Your task to perform on an android device: Search for pizza restaurants on Maps Image 0: 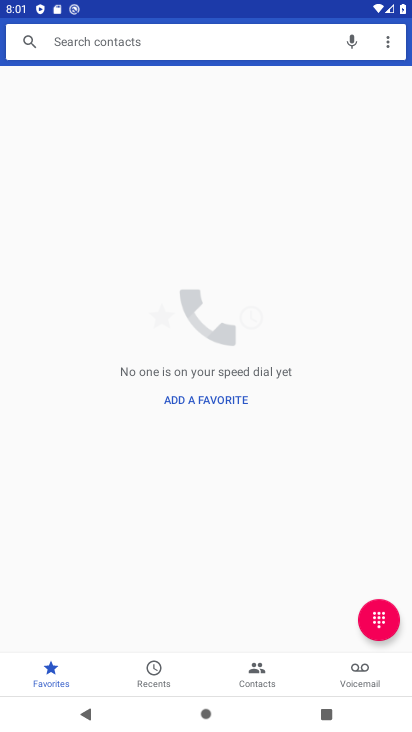
Step 0: press home button
Your task to perform on an android device: Search for pizza restaurants on Maps Image 1: 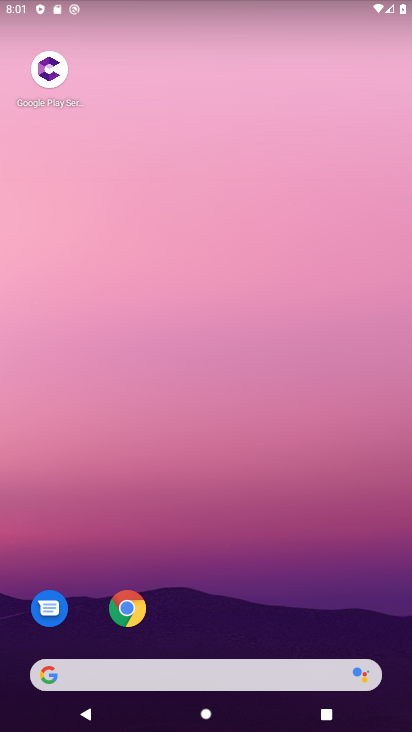
Step 1: drag from (202, 669) to (135, 68)
Your task to perform on an android device: Search for pizza restaurants on Maps Image 2: 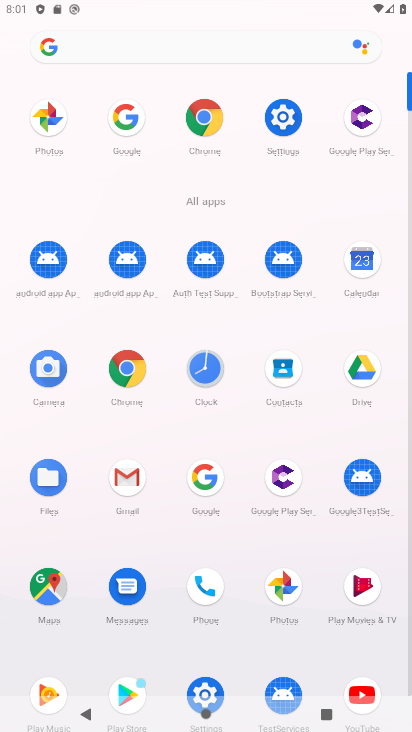
Step 2: click (40, 579)
Your task to perform on an android device: Search for pizza restaurants on Maps Image 3: 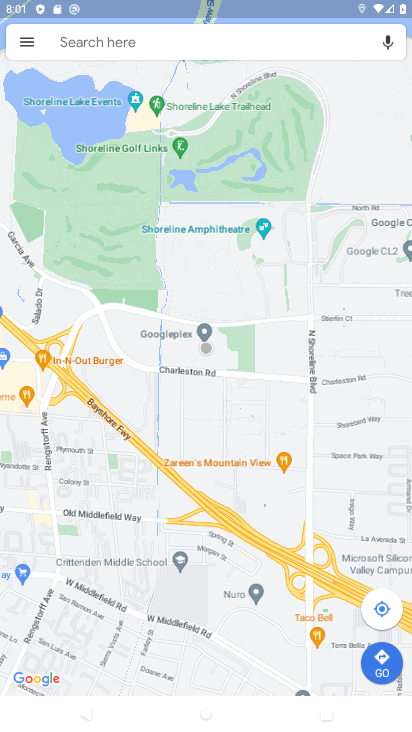
Step 3: click (171, 41)
Your task to perform on an android device: Search for pizza restaurants on Maps Image 4: 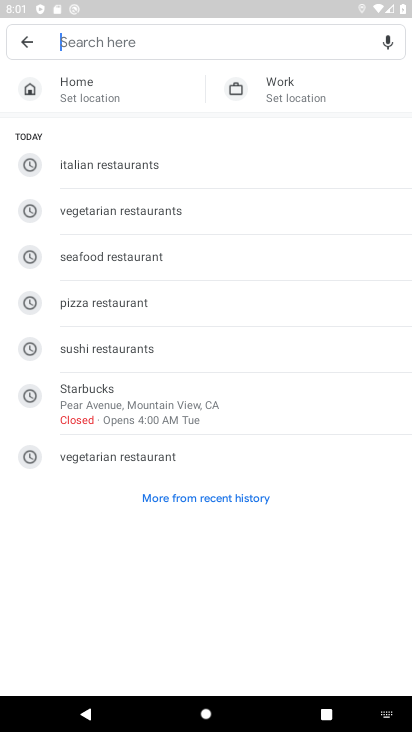
Step 4: type "pizza res"
Your task to perform on an android device: Search for pizza restaurants on Maps Image 5: 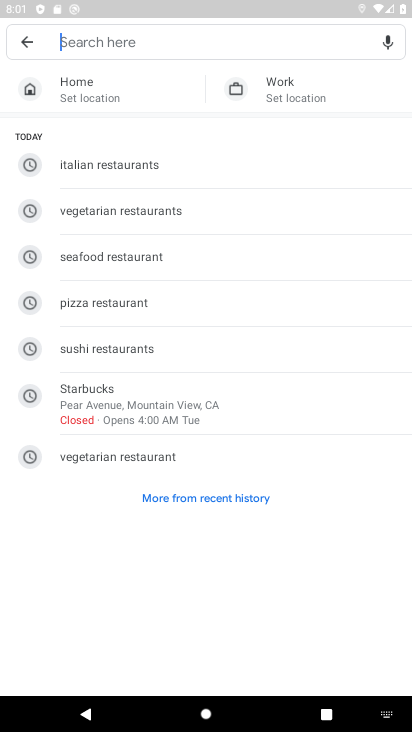
Step 5: click (152, 305)
Your task to perform on an android device: Search for pizza restaurants on Maps Image 6: 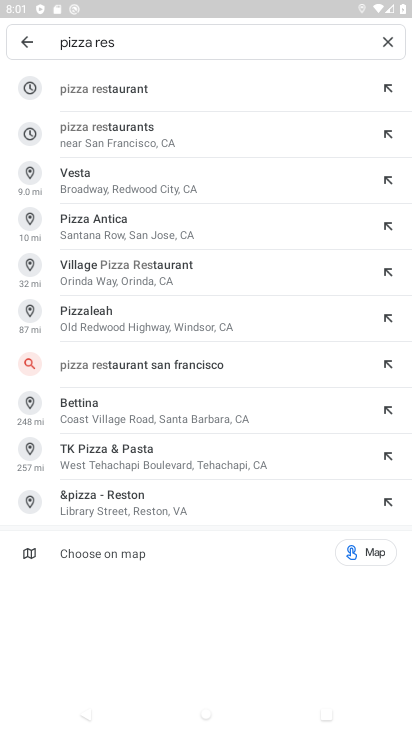
Step 6: click (153, 87)
Your task to perform on an android device: Search for pizza restaurants on Maps Image 7: 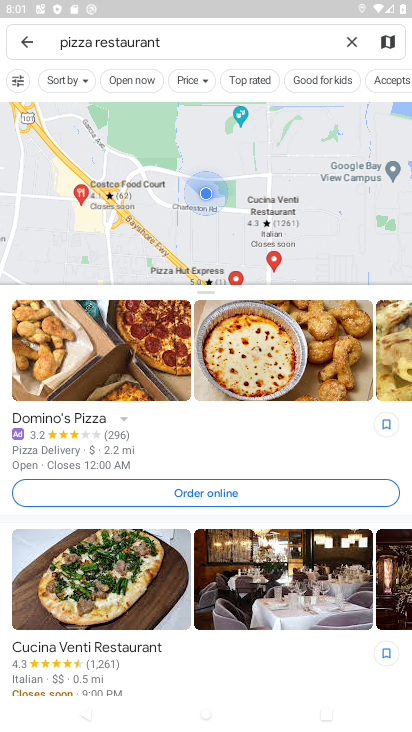
Step 7: task complete